Your task to perform on an android device: set an alarm Image 0: 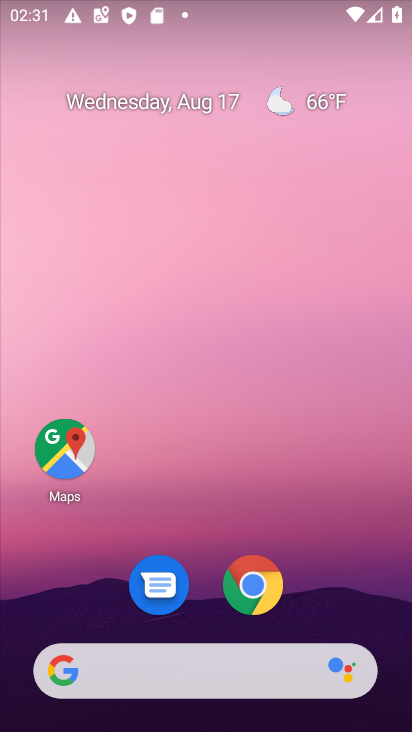
Step 0: drag from (213, 546) to (208, 5)
Your task to perform on an android device: set an alarm Image 1: 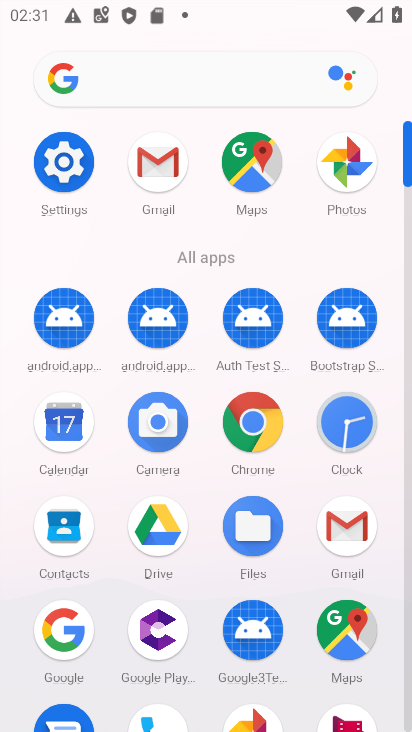
Step 1: click (350, 425)
Your task to perform on an android device: set an alarm Image 2: 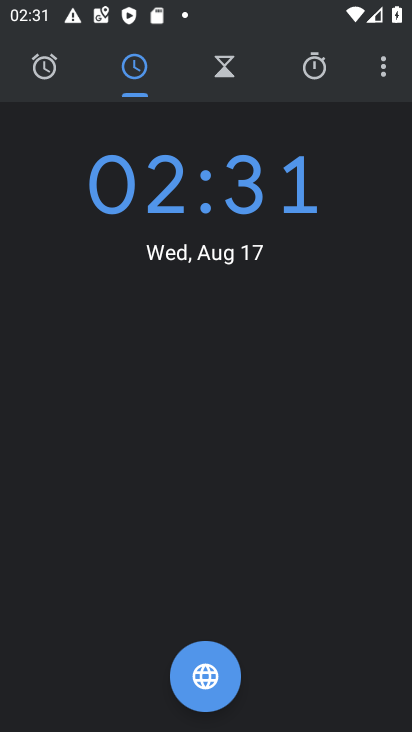
Step 2: click (51, 77)
Your task to perform on an android device: set an alarm Image 3: 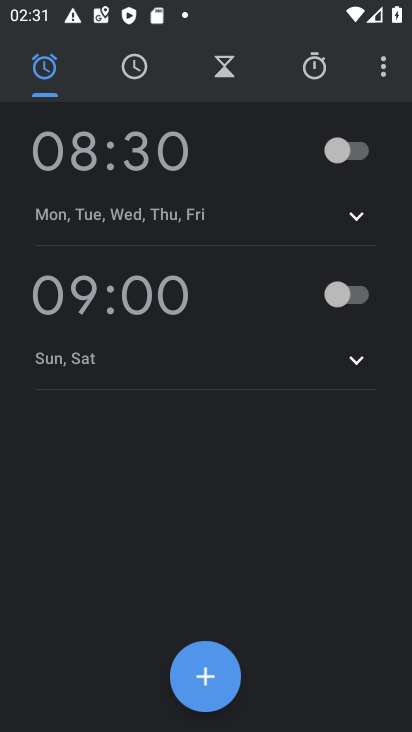
Step 3: click (202, 672)
Your task to perform on an android device: set an alarm Image 4: 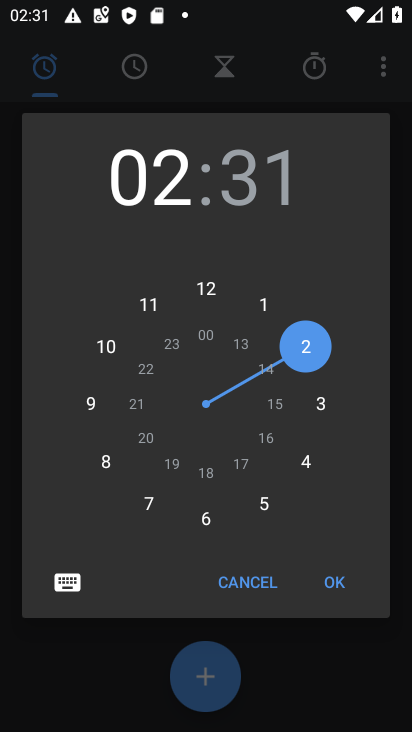
Step 4: click (251, 195)
Your task to perform on an android device: set an alarm Image 5: 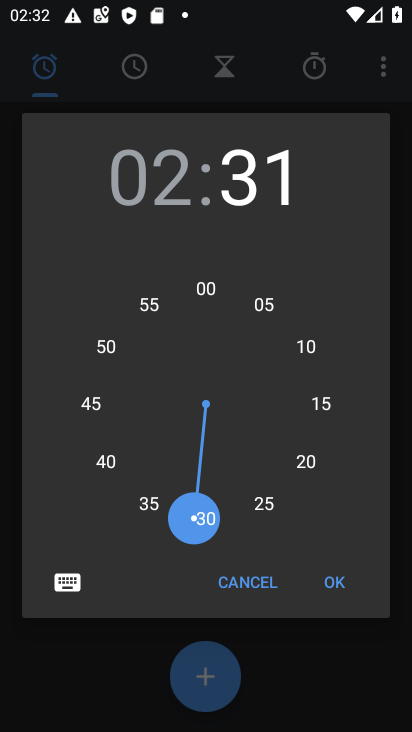
Step 5: click (200, 293)
Your task to perform on an android device: set an alarm Image 6: 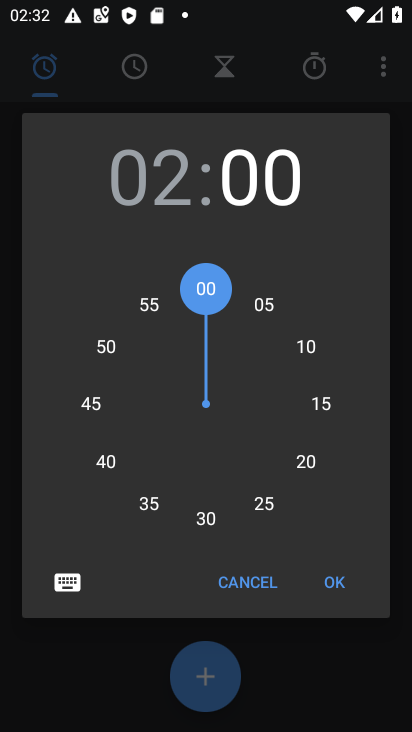
Step 6: click (337, 582)
Your task to perform on an android device: set an alarm Image 7: 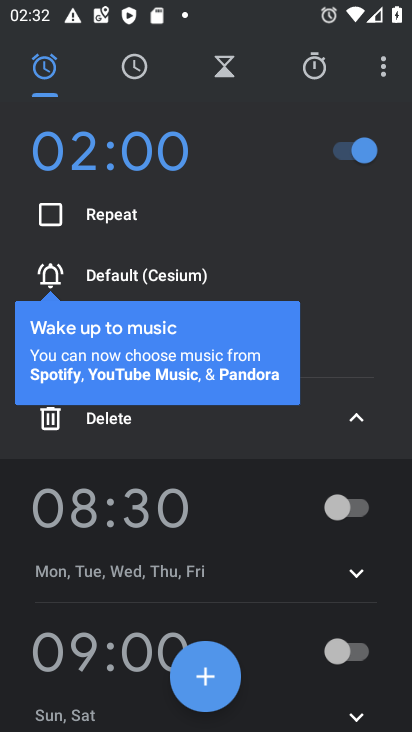
Step 7: task complete